Your task to perform on an android device: open app "Walmart Shopping & Grocery" (install if not already installed), go to login, and select forgot password Image 0: 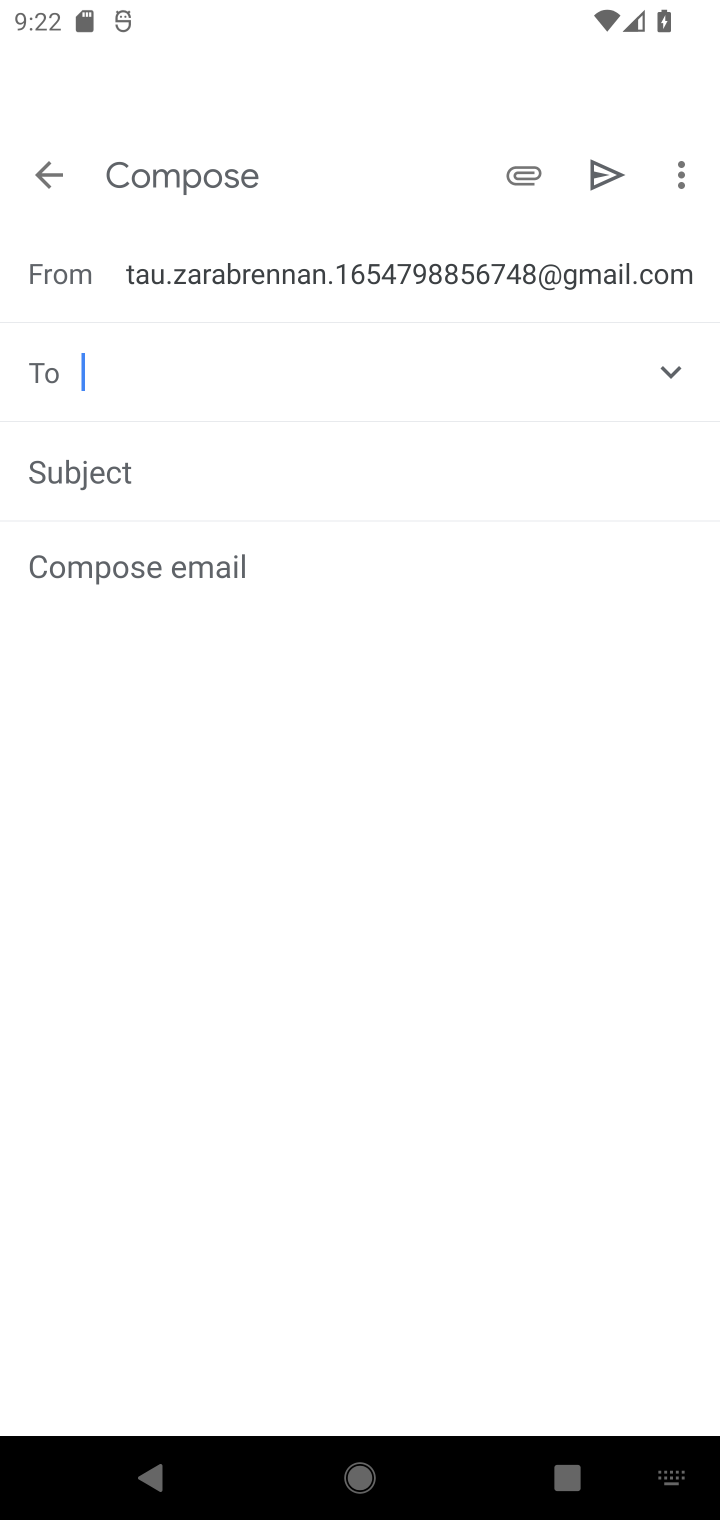
Step 0: press home button
Your task to perform on an android device: open app "Walmart Shopping & Grocery" (install if not already installed), go to login, and select forgot password Image 1: 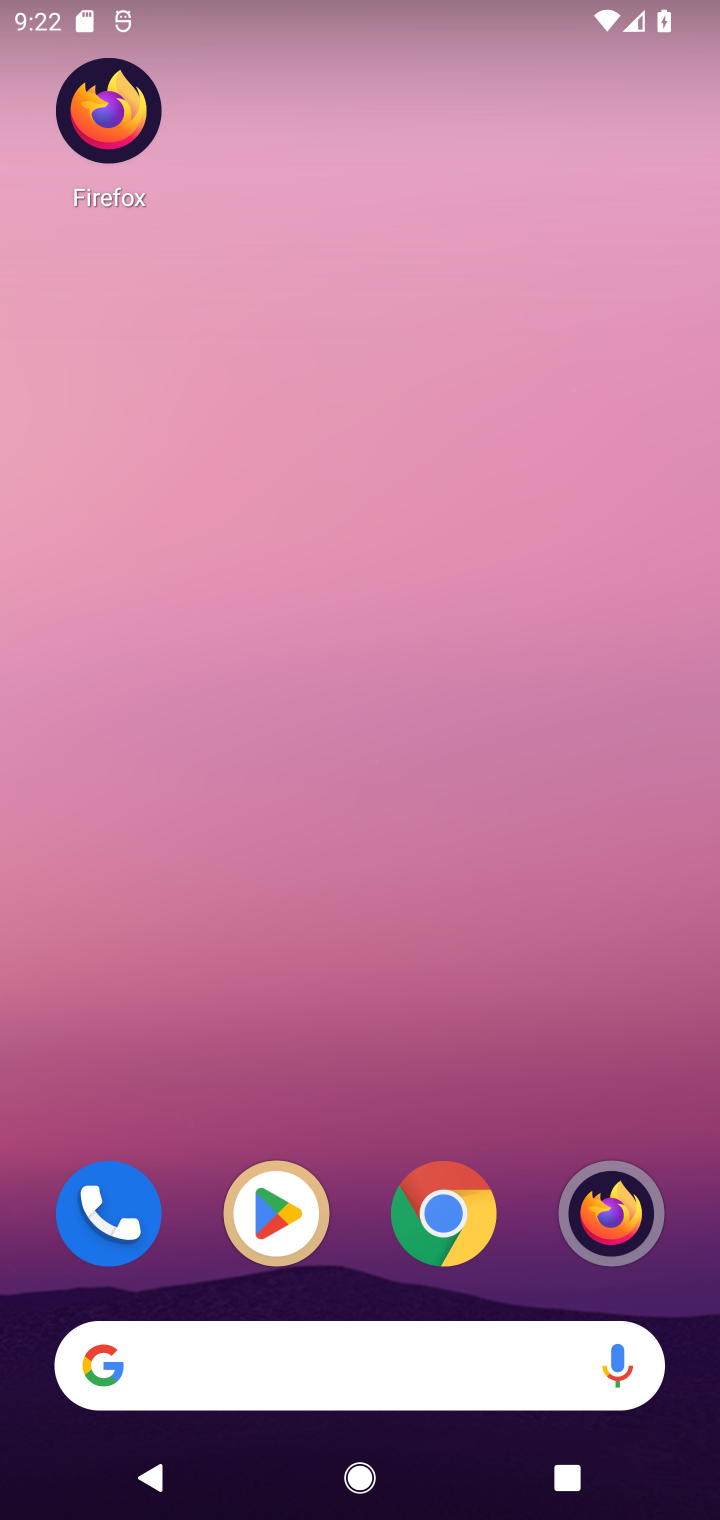
Step 1: click (295, 1202)
Your task to perform on an android device: open app "Walmart Shopping & Grocery" (install if not already installed), go to login, and select forgot password Image 2: 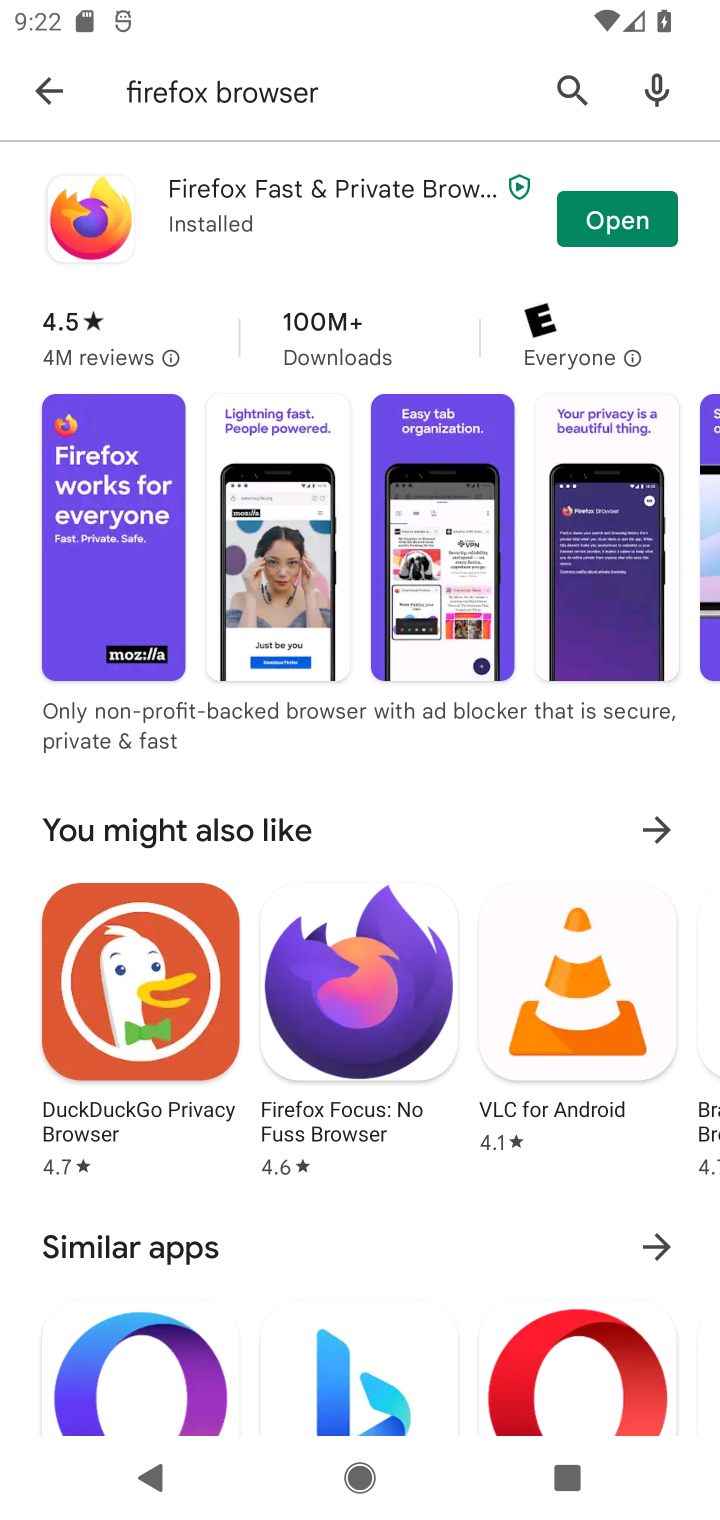
Step 2: click (363, 91)
Your task to perform on an android device: open app "Walmart Shopping & Grocery" (install if not already installed), go to login, and select forgot password Image 3: 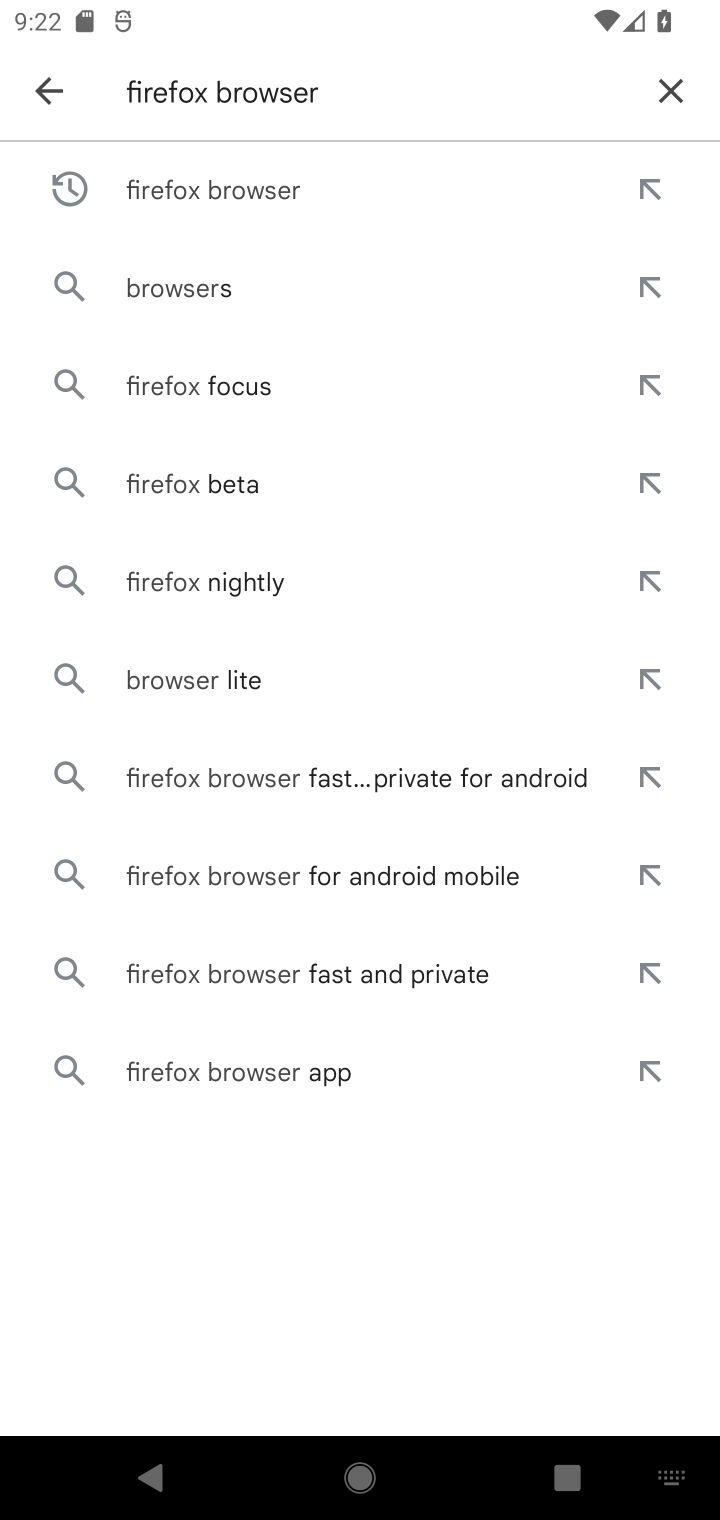
Step 3: click (682, 84)
Your task to perform on an android device: open app "Walmart Shopping & Grocery" (install if not already installed), go to login, and select forgot password Image 4: 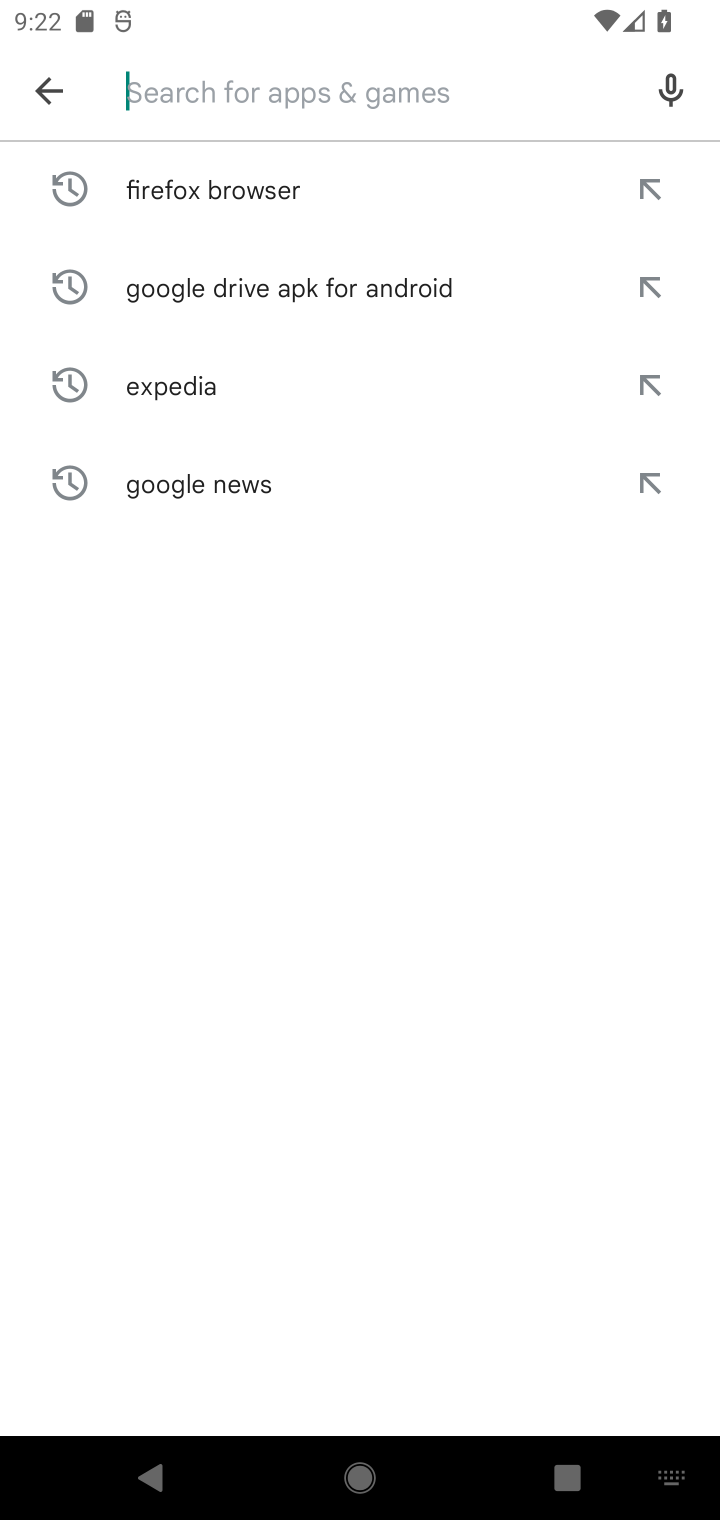
Step 4: type "walmart"
Your task to perform on an android device: open app "Walmart Shopping & Grocery" (install if not already installed), go to login, and select forgot password Image 5: 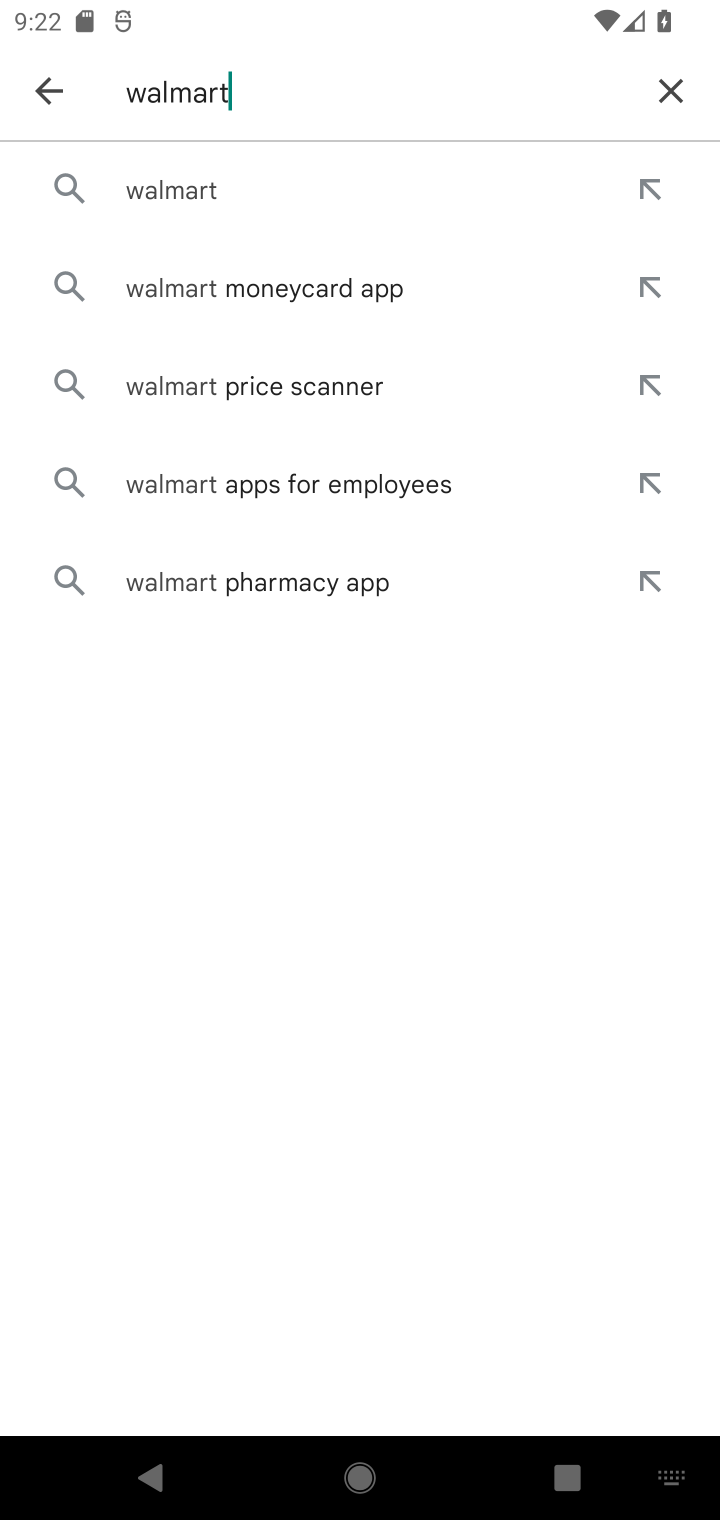
Step 5: click (210, 177)
Your task to perform on an android device: open app "Walmart Shopping & Grocery" (install if not already installed), go to login, and select forgot password Image 6: 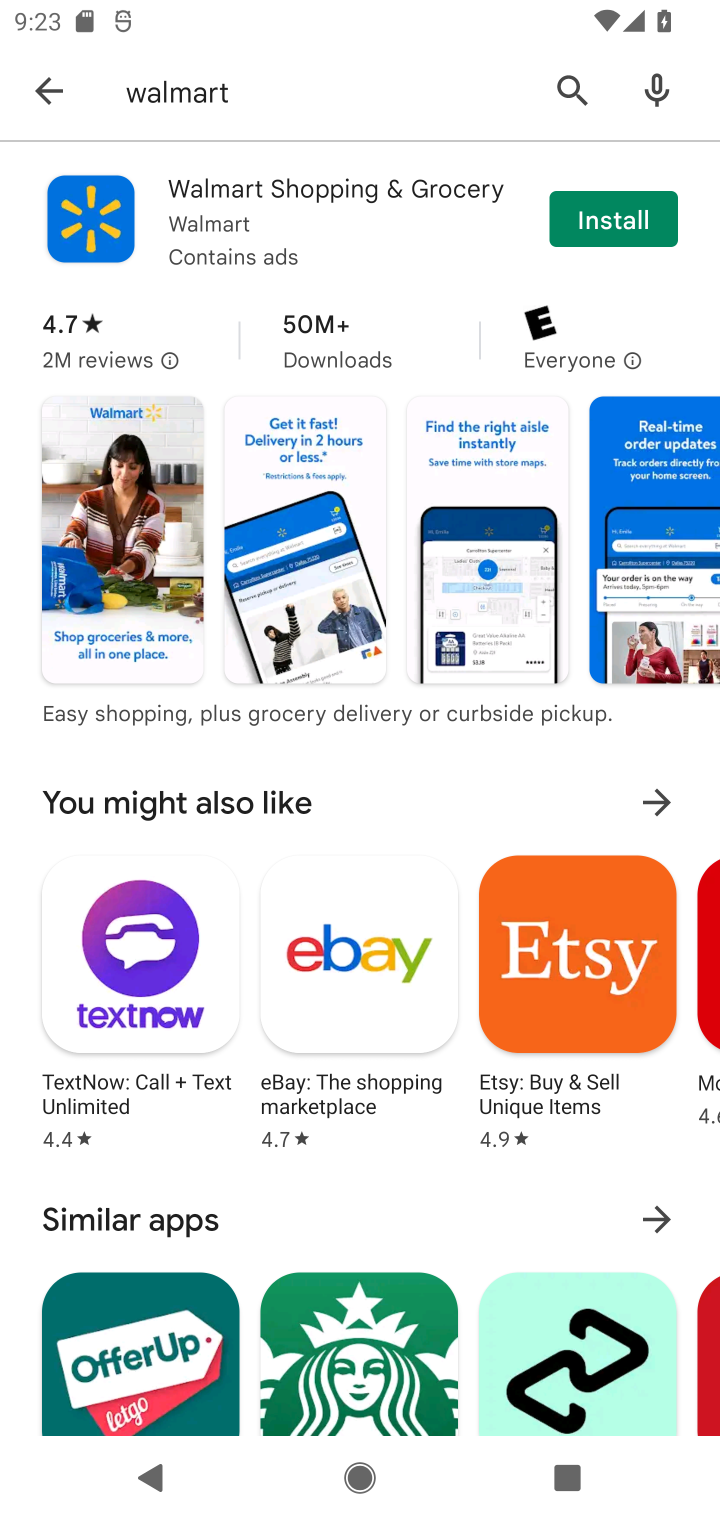
Step 6: click (613, 228)
Your task to perform on an android device: open app "Walmart Shopping & Grocery" (install if not already installed), go to login, and select forgot password Image 7: 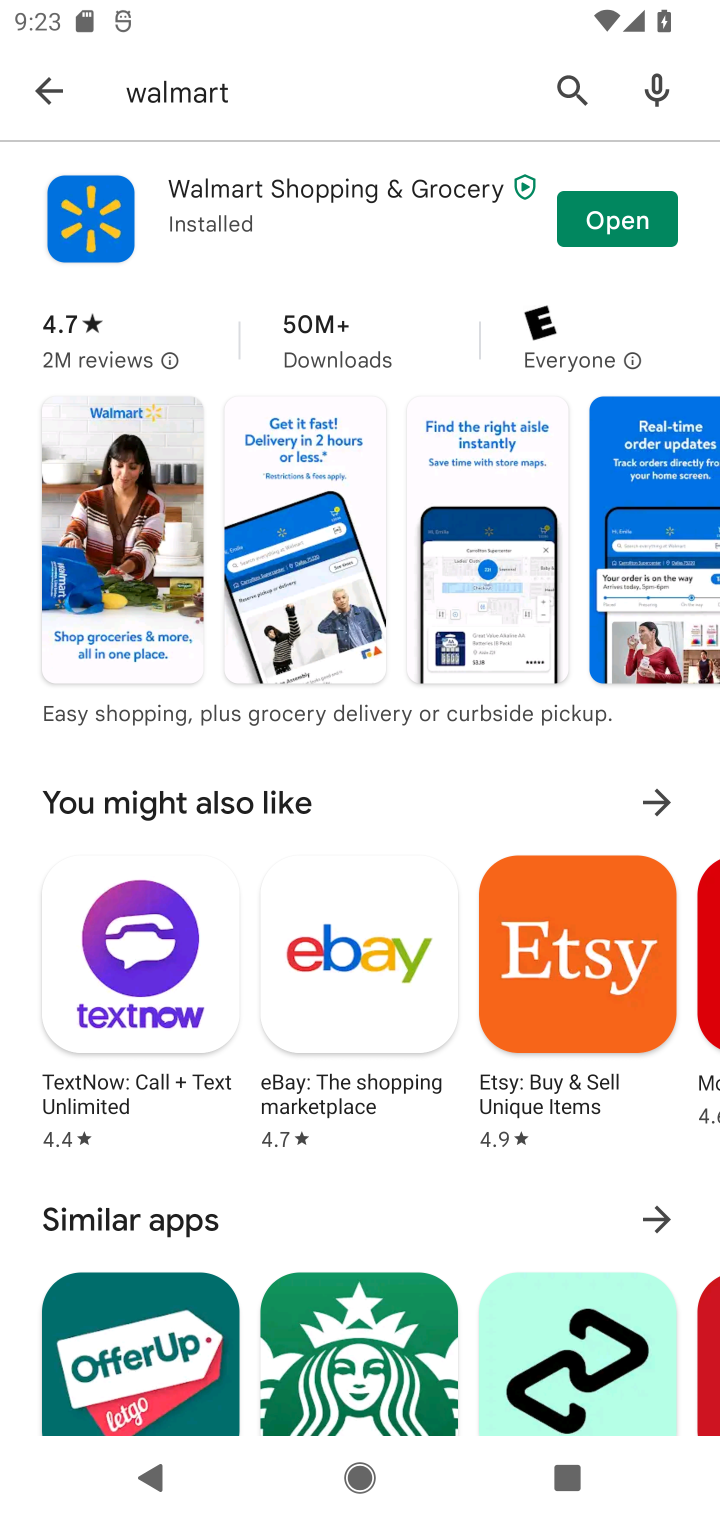
Step 7: click (632, 206)
Your task to perform on an android device: open app "Walmart Shopping & Grocery" (install if not already installed), go to login, and select forgot password Image 8: 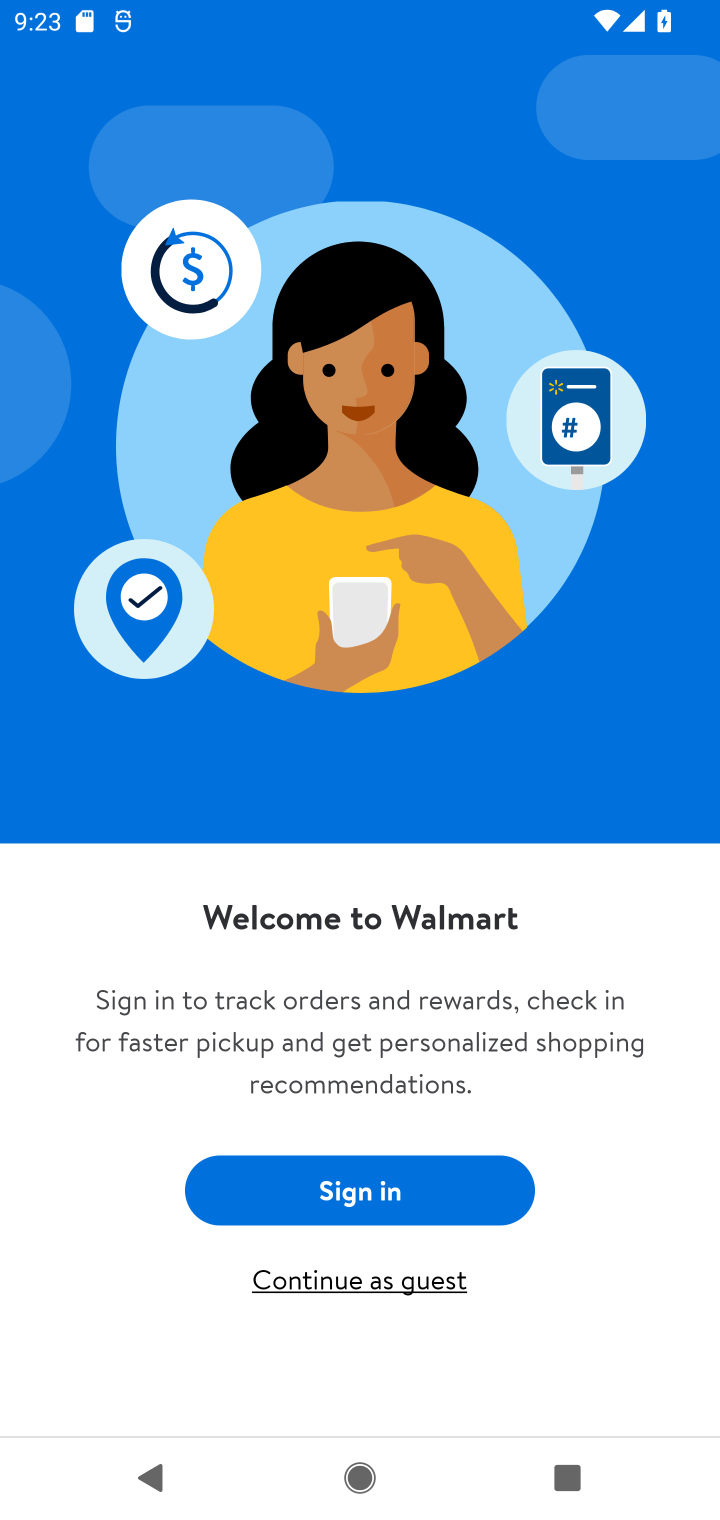
Step 8: click (415, 1199)
Your task to perform on an android device: open app "Walmart Shopping & Grocery" (install if not already installed), go to login, and select forgot password Image 9: 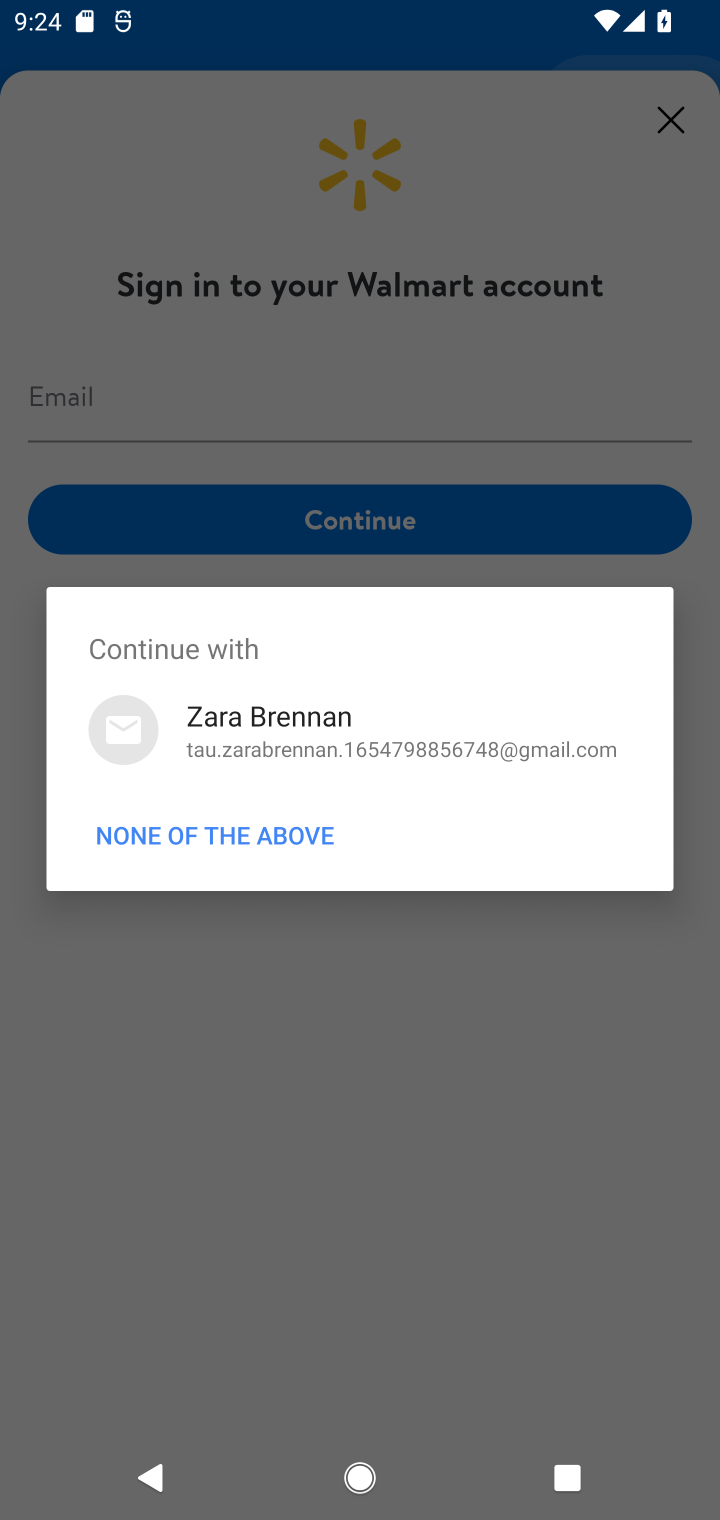
Step 9: click (386, 740)
Your task to perform on an android device: open app "Walmart Shopping & Grocery" (install if not already installed), go to login, and select forgot password Image 10: 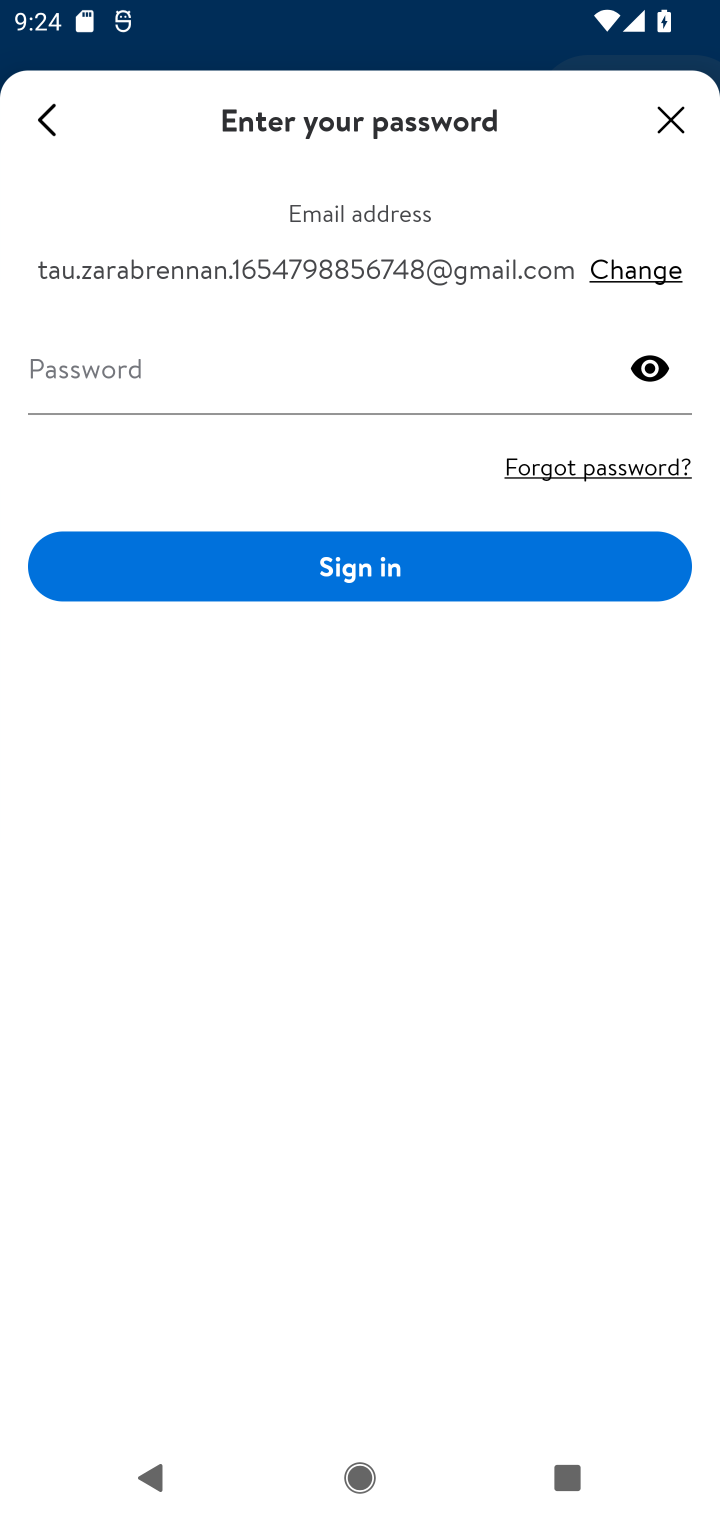
Step 10: click (648, 463)
Your task to perform on an android device: open app "Walmart Shopping & Grocery" (install if not already installed), go to login, and select forgot password Image 11: 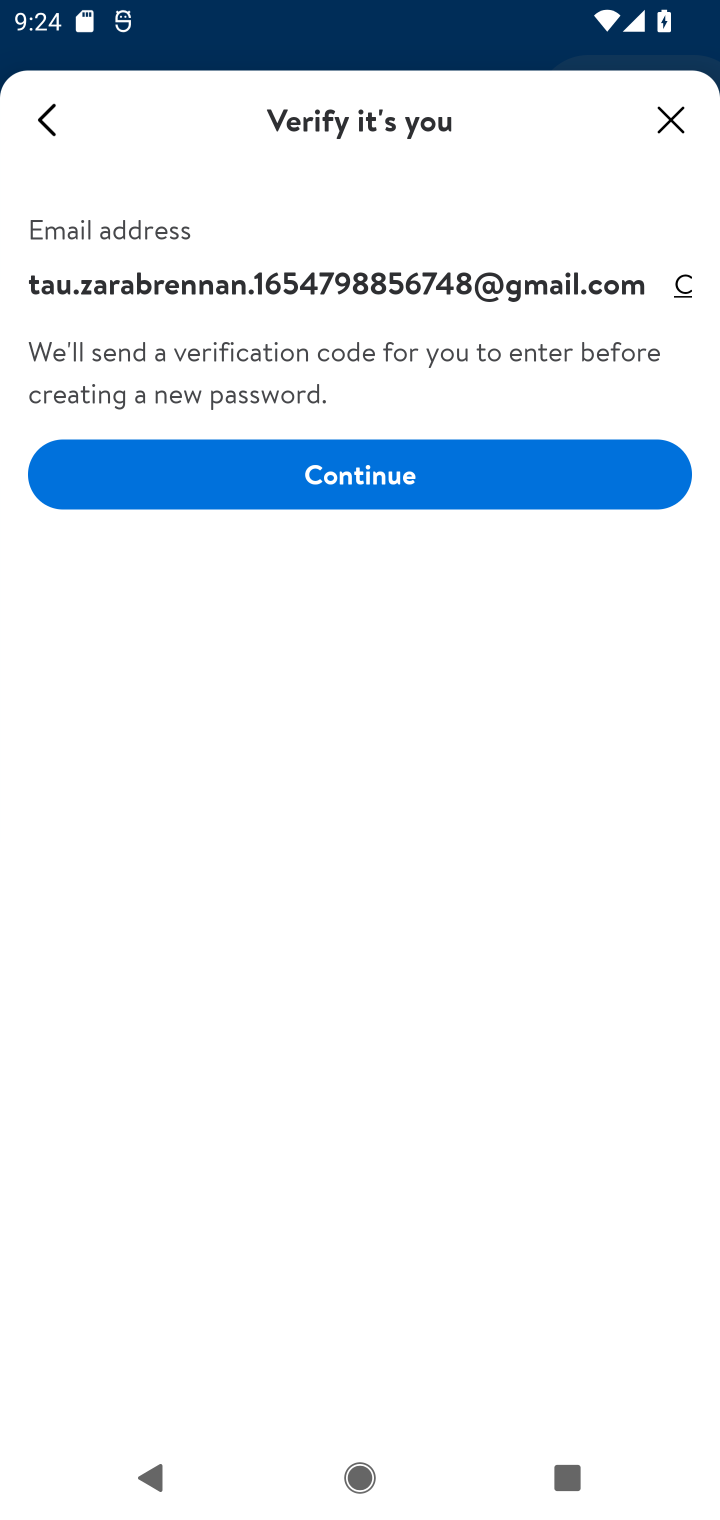
Step 11: task complete